Your task to perform on an android device: Open Google Maps Image 0: 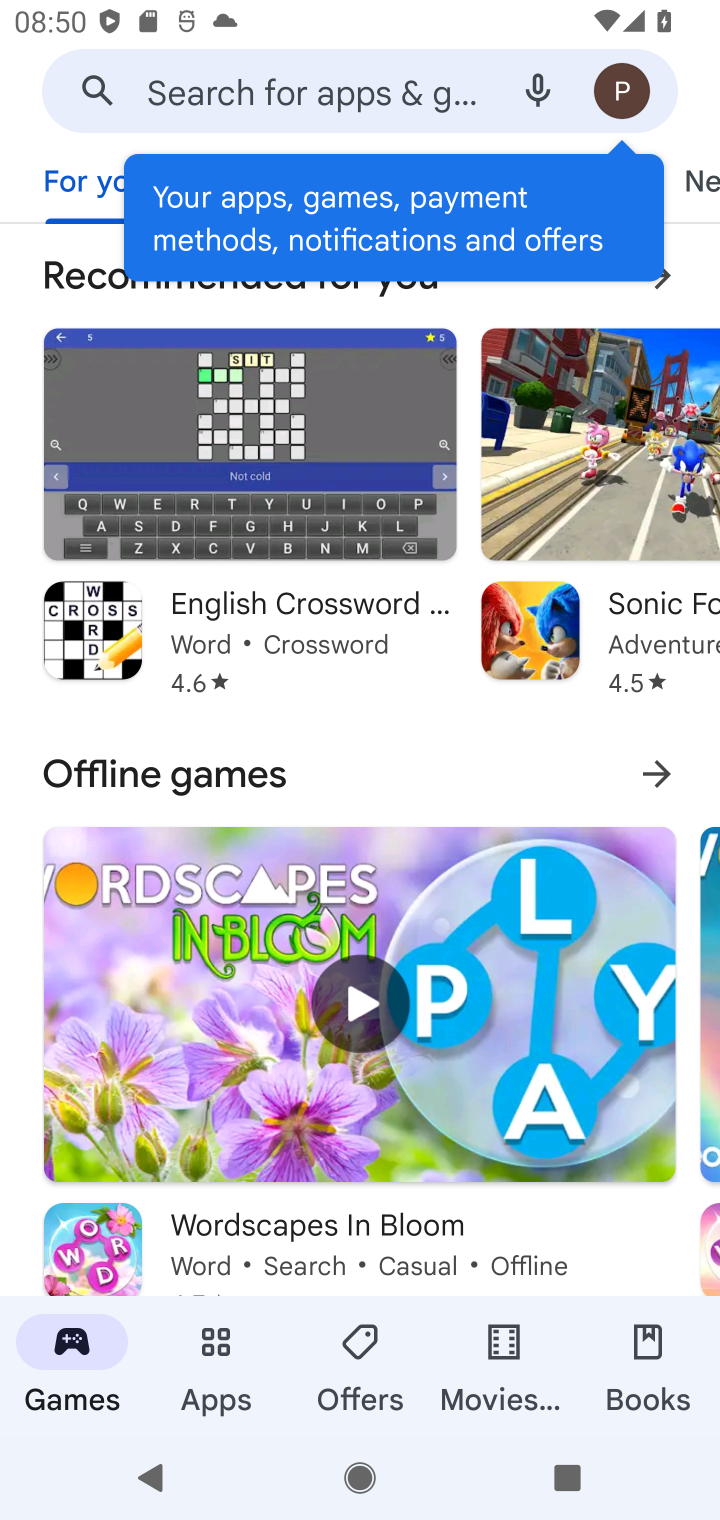
Step 0: press home button
Your task to perform on an android device: Open Google Maps Image 1: 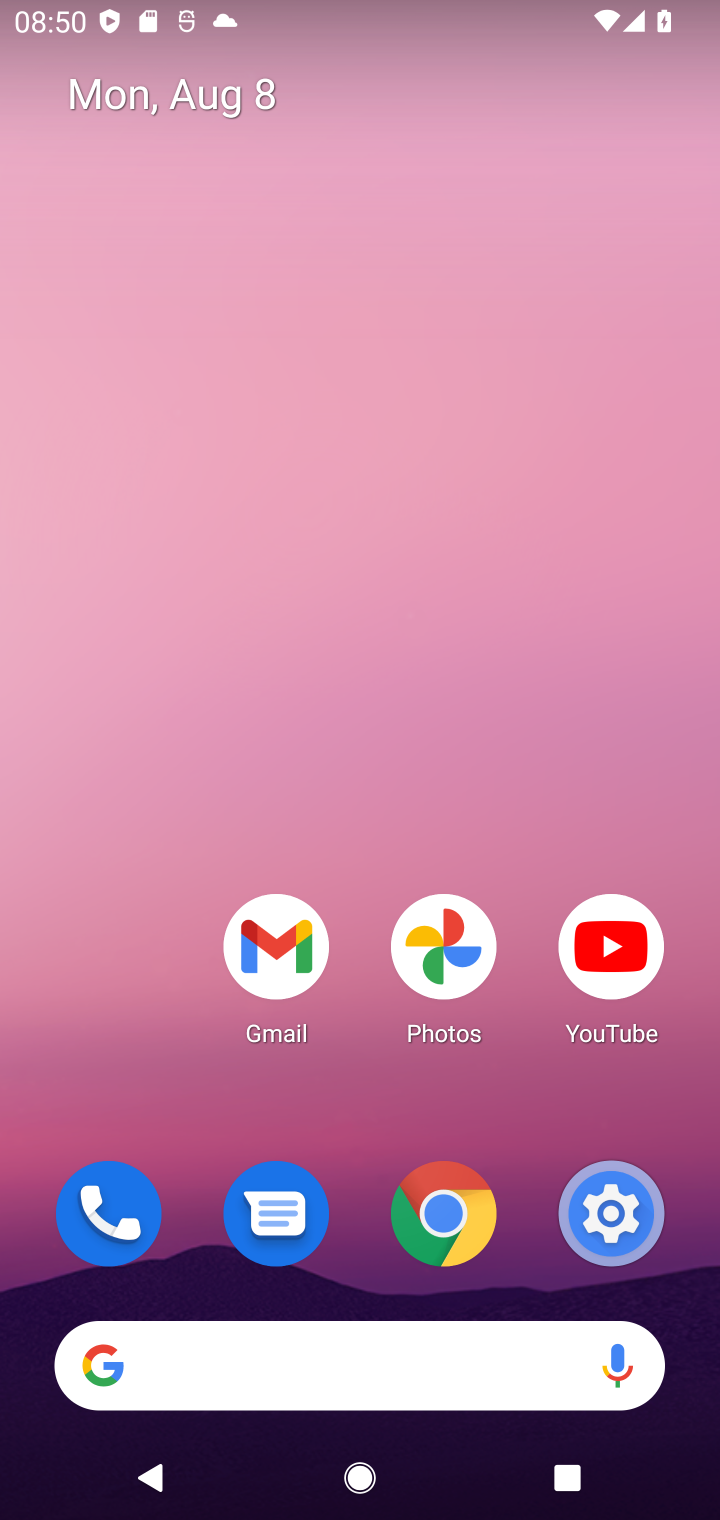
Step 1: drag from (409, 1008) to (358, 226)
Your task to perform on an android device: Open Google Maps Image 2: 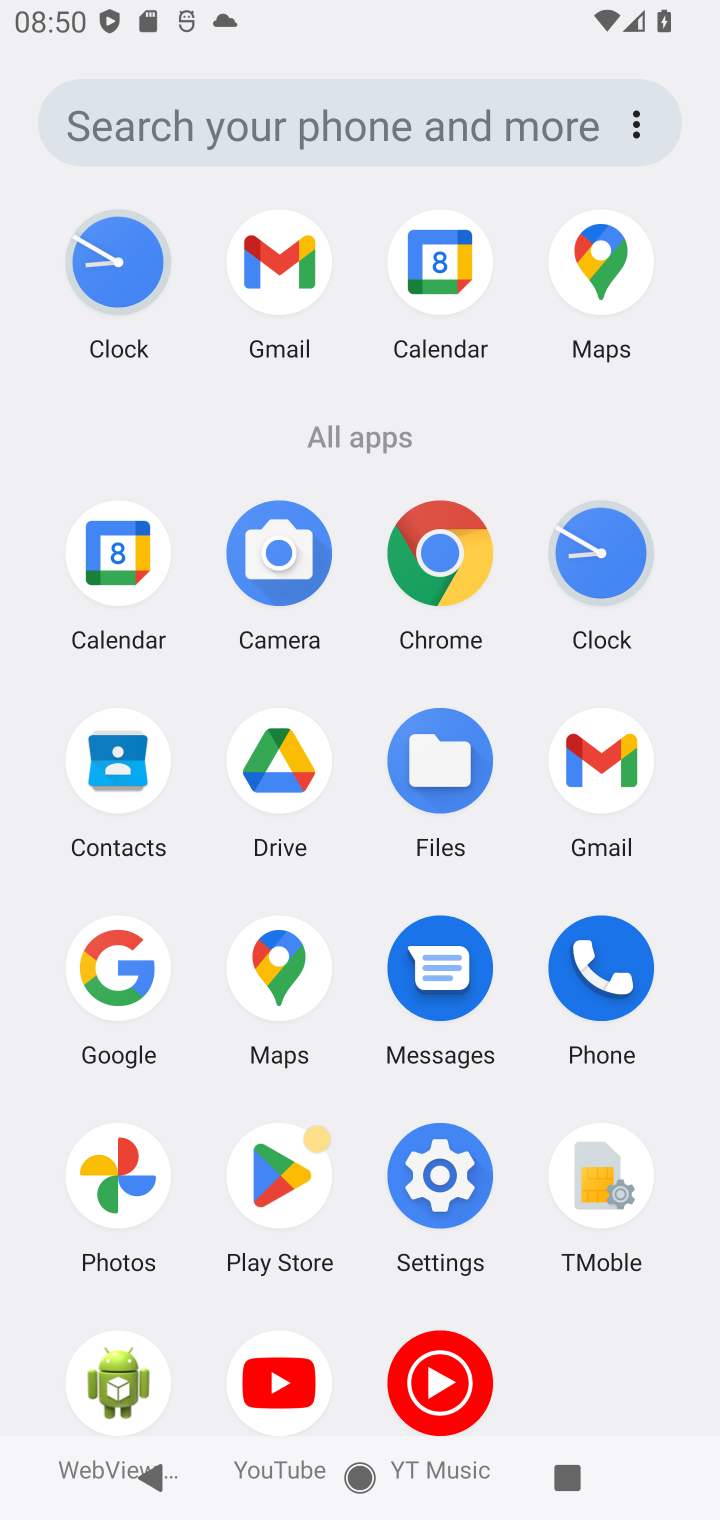
Step 2: click (268, 1004)
Your task to perform on an android device: Open Google Maps Image 3: 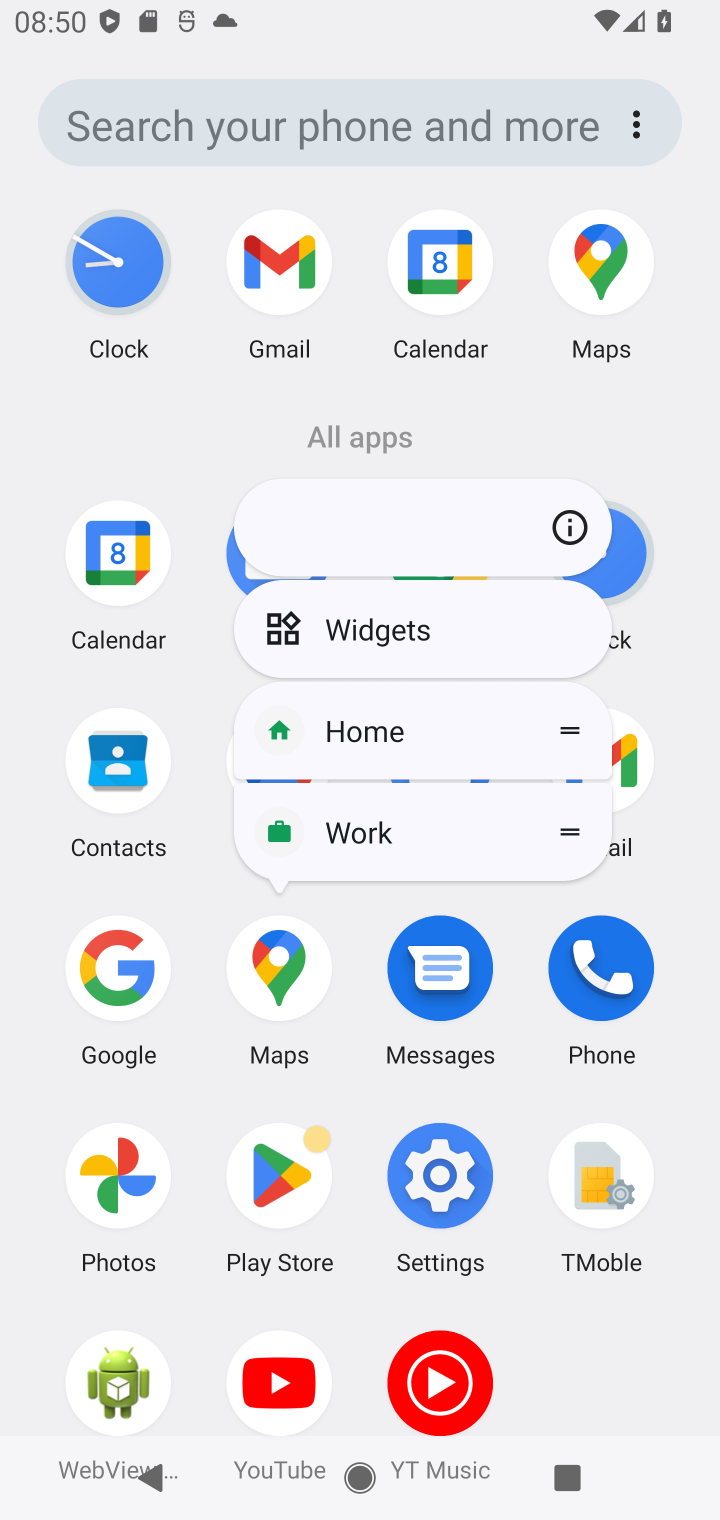
Step 3: click (270, 992)
Your task to perform on an android device: Open Google Maps Image 4: 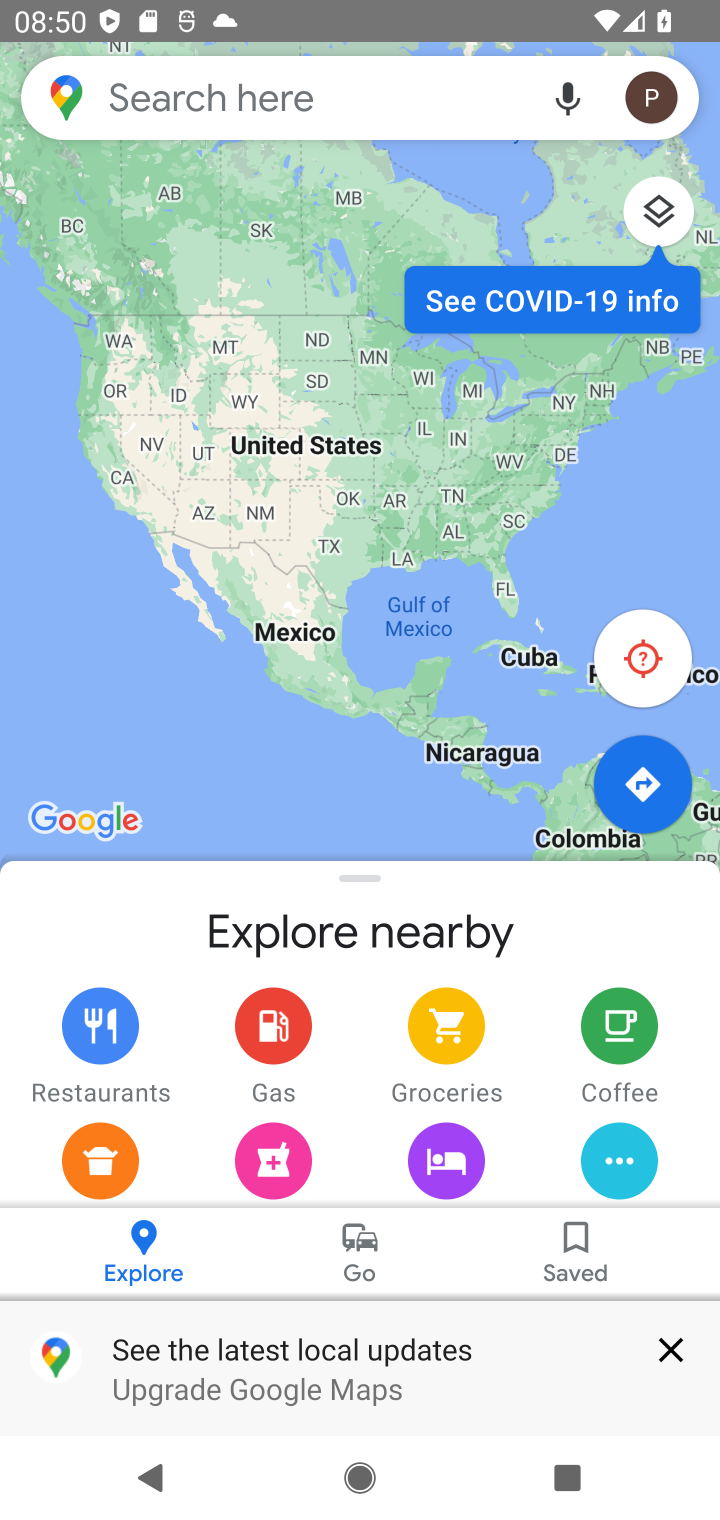
Step 4: task complete